Your task to perform on an android device: Open Youtube and go to the subscriptions tab Image 0: 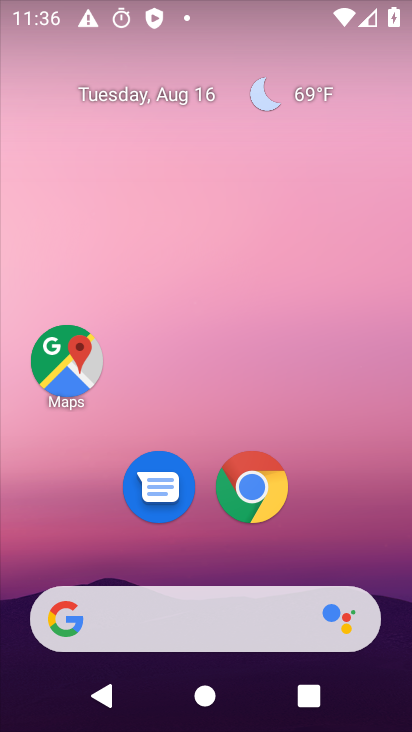
Step 0: drag from (343, 561) to (314, 173)
Your task to perform on an android device: Open Youtube and go to the subscriptions tab Image 1: 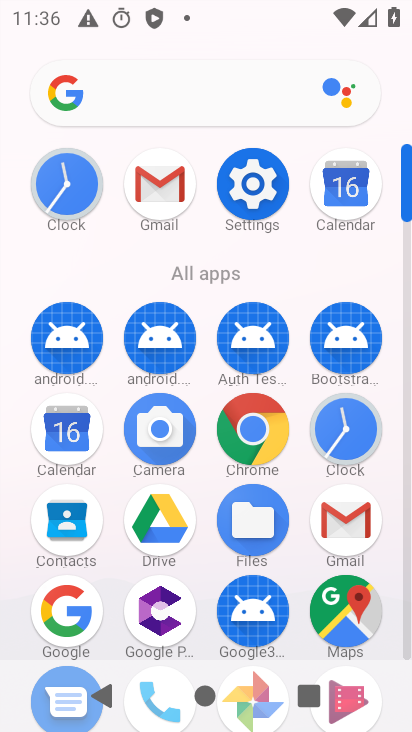
Step 1: drag from (294, 275) to (272, 17)
Your task to perform on an android device: Open Youtube and go to the subscriptions tab Image 2: 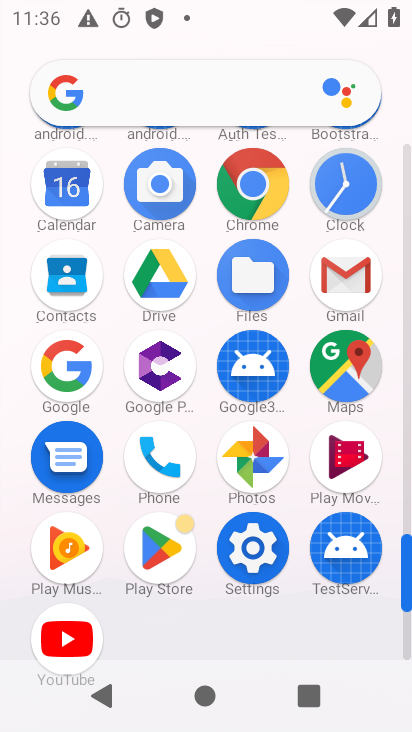
Step 2: click (68, 652)
Your task to perform on an android device: Open Youtube and go to the subscriptions tab Image 3: 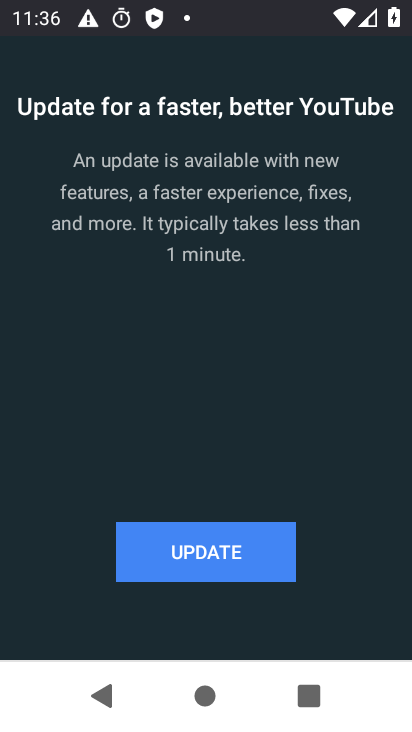
Step 3: click (245, 572)
Your task to perform on an android device: Open Youtube and go to the subscriptions tab Image 4: 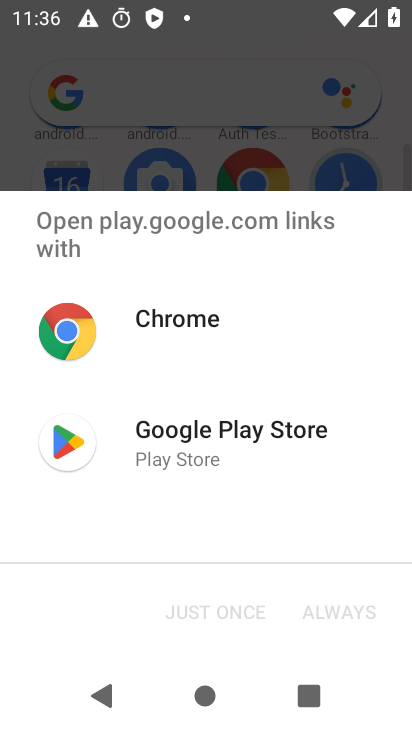
Step 4: click (206, 446)
Your task to perform on an android device: Open Youtube and go to the subscriptions tab Image 5: 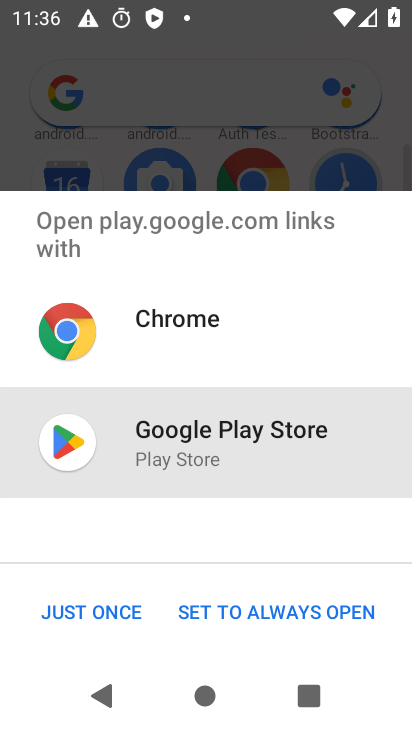
Step 5: click (124, 610)
Your task to perform on an android device: Open Youtube and go to the subscriptions tab Image 6: 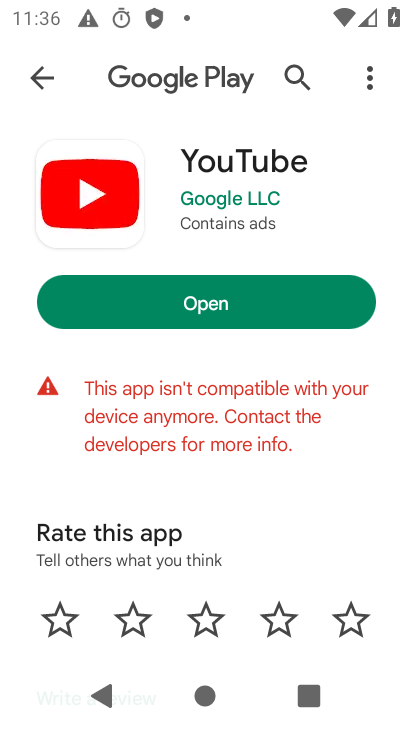
Step 6: click (202, 318)
Your task to perform on an android device: Open Youtube and go to the subscriptions tab Image 7: 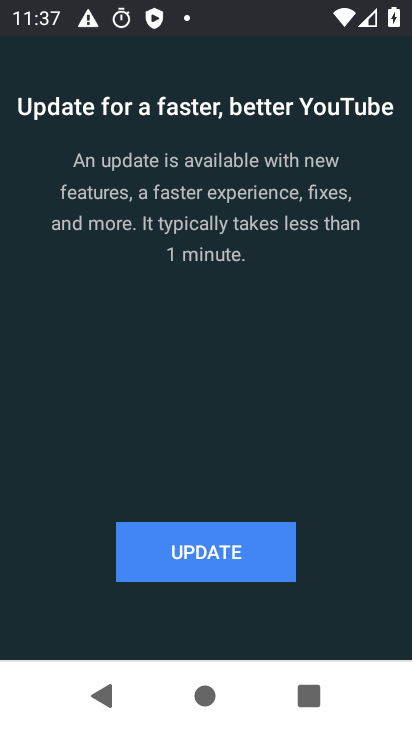
Step 7: task complete